Your task to perform on an android device: open app "Booking.com: Hotels and more" (install if not already installed) Image 0: 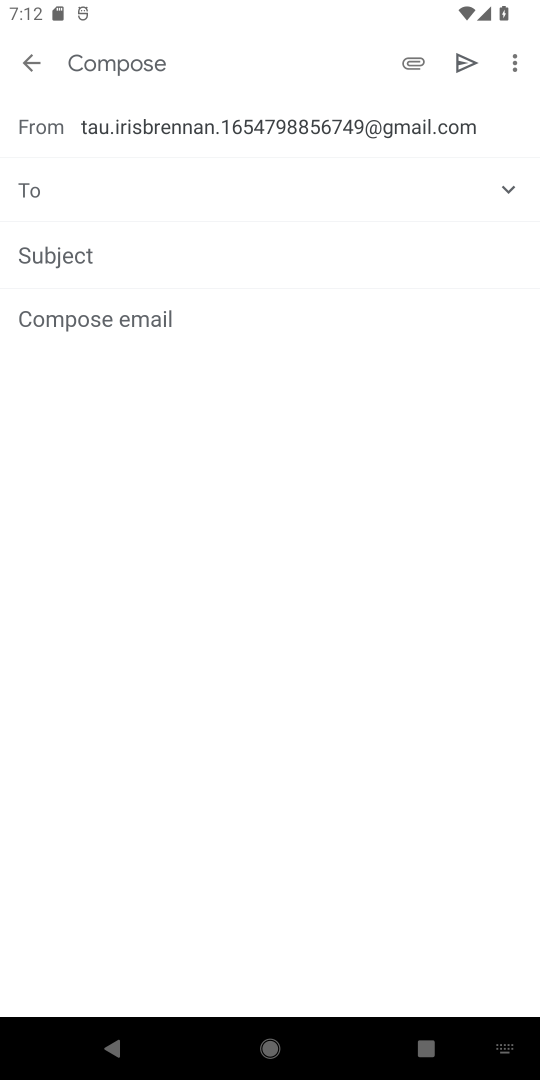
Step 0: press home button
Your task to perform on an android device: open app "Booking.com: Hotels and more" (install if not already installed) Image 1: 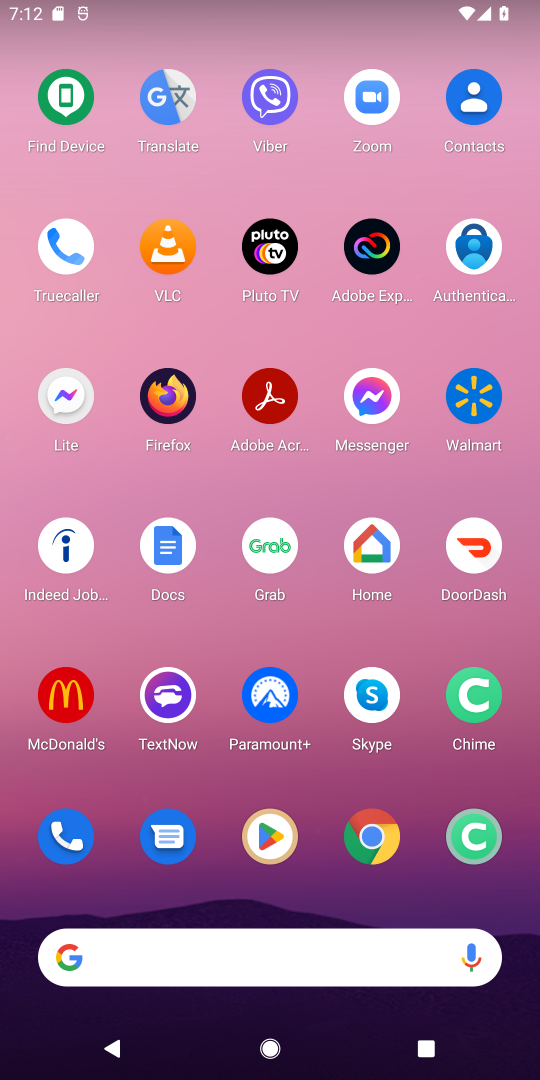
Step 1: press home button
Your task to perform on an android device: open app "Booking.com: Hotels and more" (install if not already installed) Image 2: 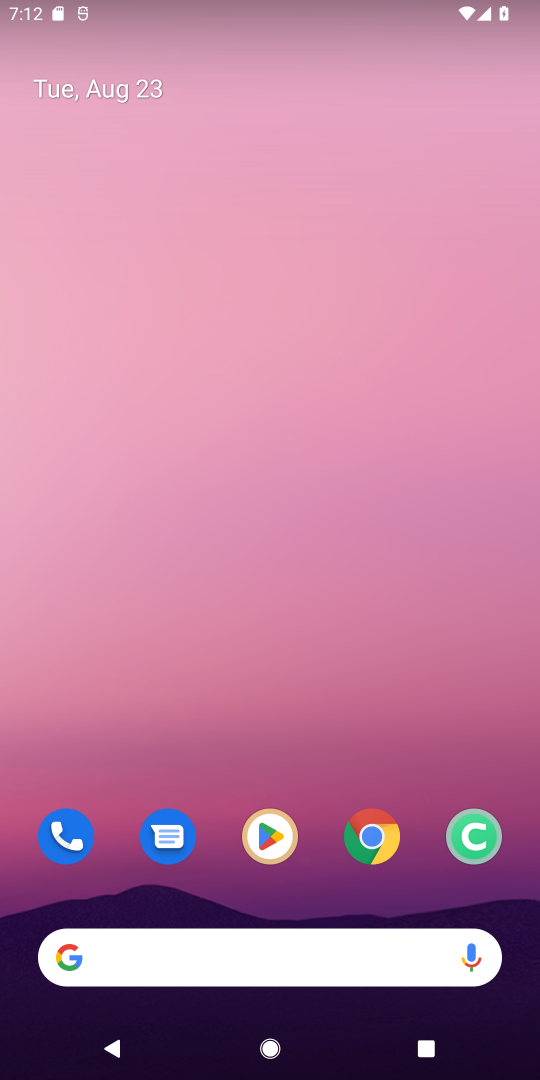
Step 2: click (273, 827)
Your task to perform on an android device: open app "Booking.com: Hotels and more" (install if not already installed) Image 3: 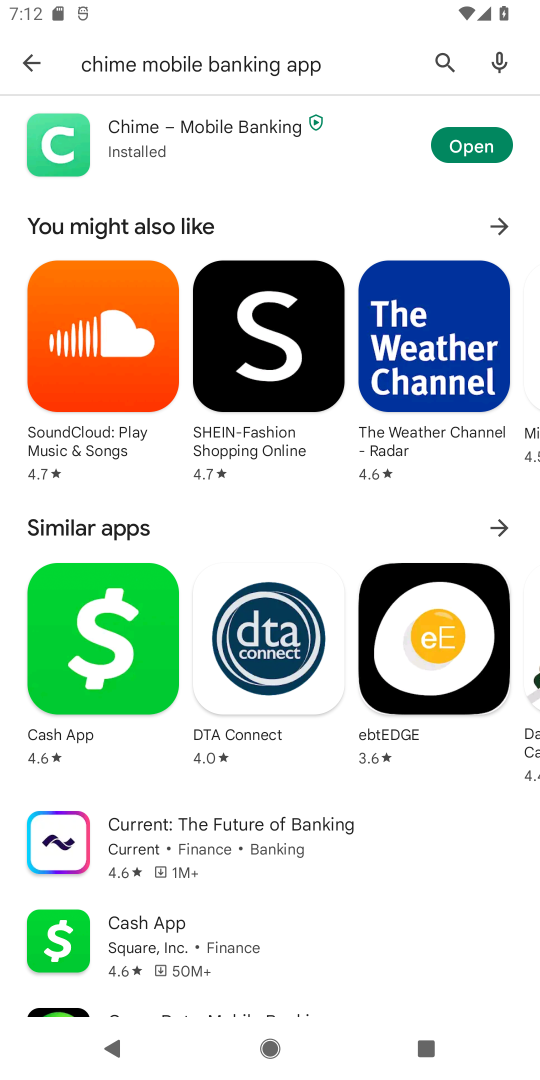
Step 3: click (444, 53)
Your task to perform on an android device: open app "Booking.com: Hotels and more" (install if not already installed) Image 4: 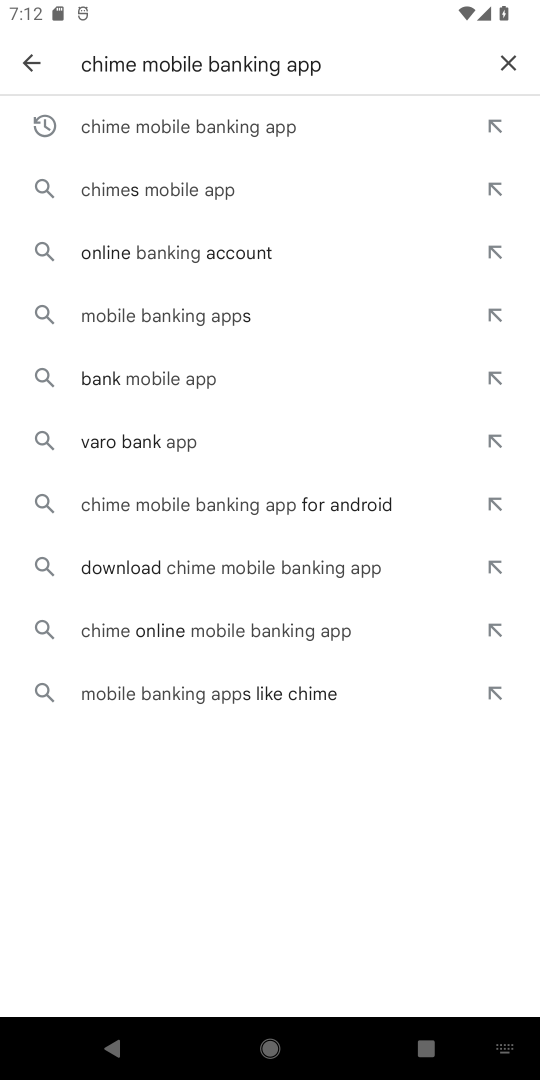
Step 4: click (516, 51)
Your task to perform on an android device: open app "Booking.com: Hotels and more" (install if not already installed) Image 5: 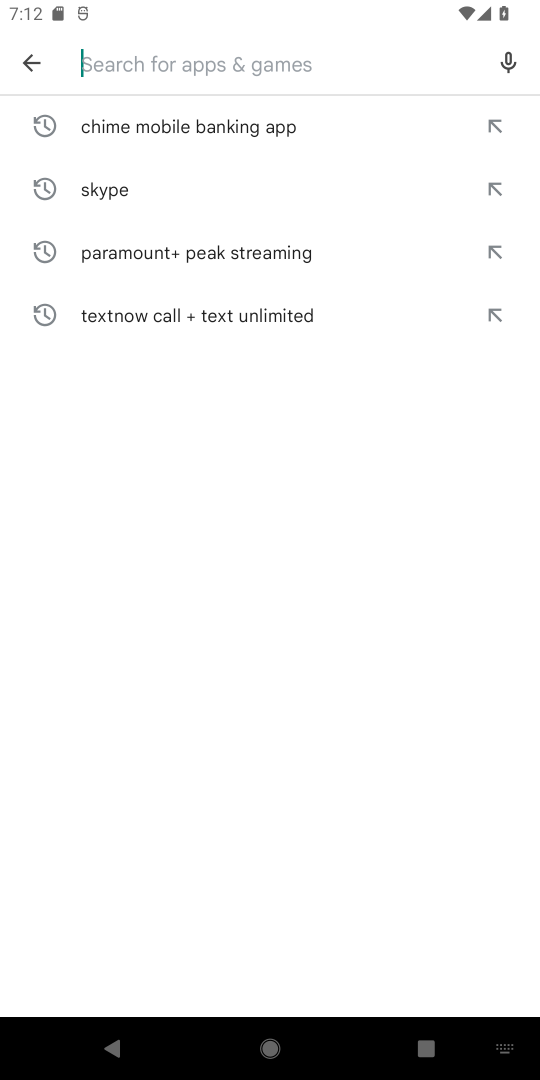
Step 5: type "Booking.com: Hotels and more"
Your task to perform on an android device: open app "Booking.com: Hotels and more" (install if not already installed) Image 6: 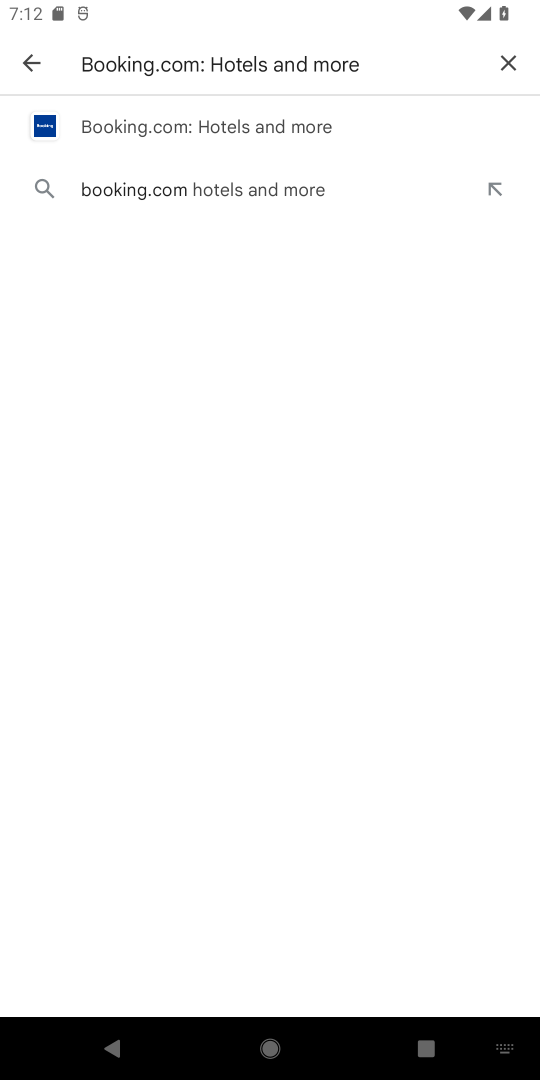
Step 6: click (240, 134)
Your task to perform on an android device: open app "Booking.com: Hotels and more" (install if not already installed) Image 7: 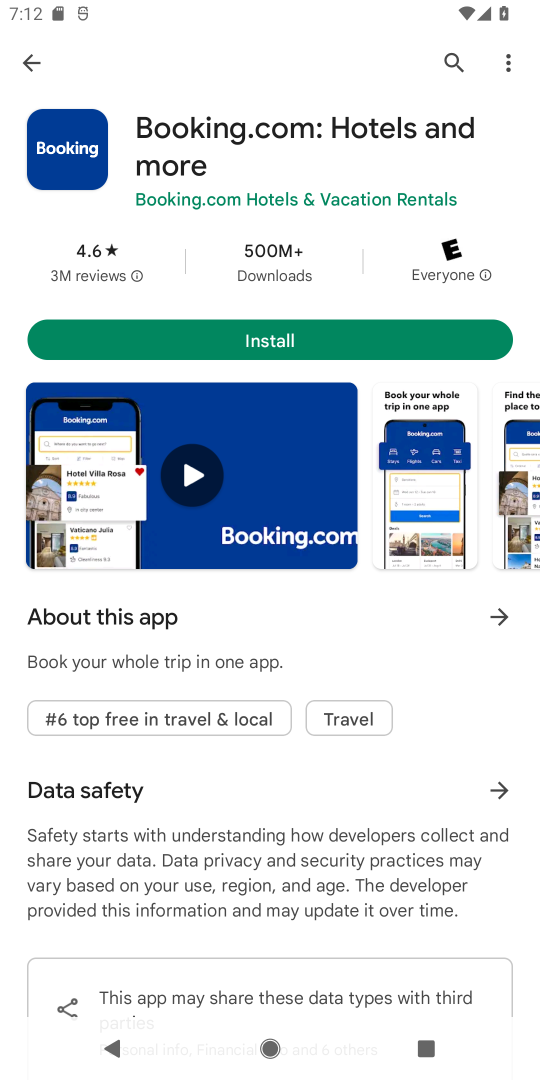
Step 7: click (329, 342)
Your task to perform on an android device: open app "Booking.com: Hotels and more" (install if not already installed) Image 8: 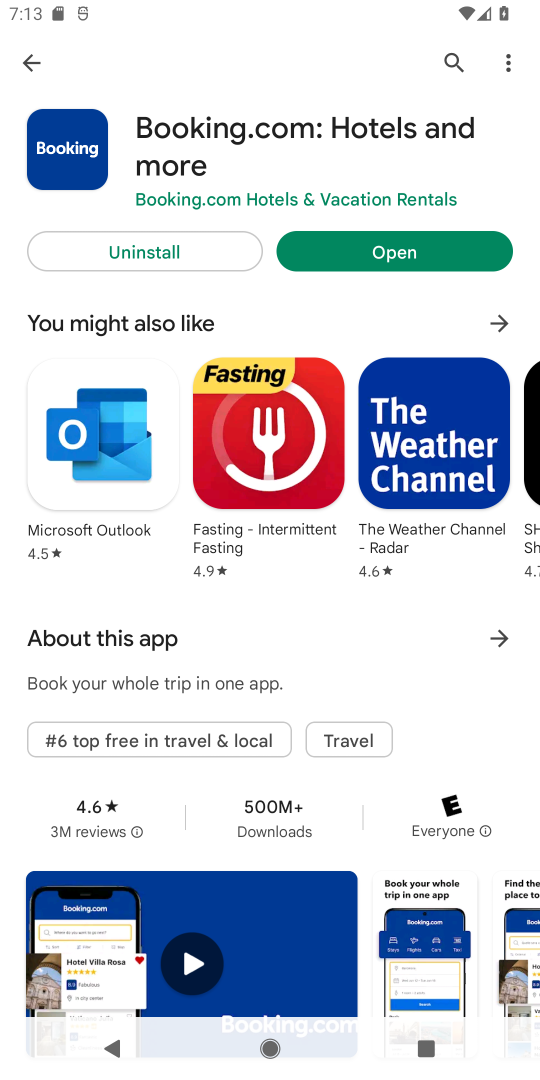
Step 8: click (401, 259)
Your task to perform on an android device: open app "Booking.com: Hotels and more" (install if not already installed) Image 9: 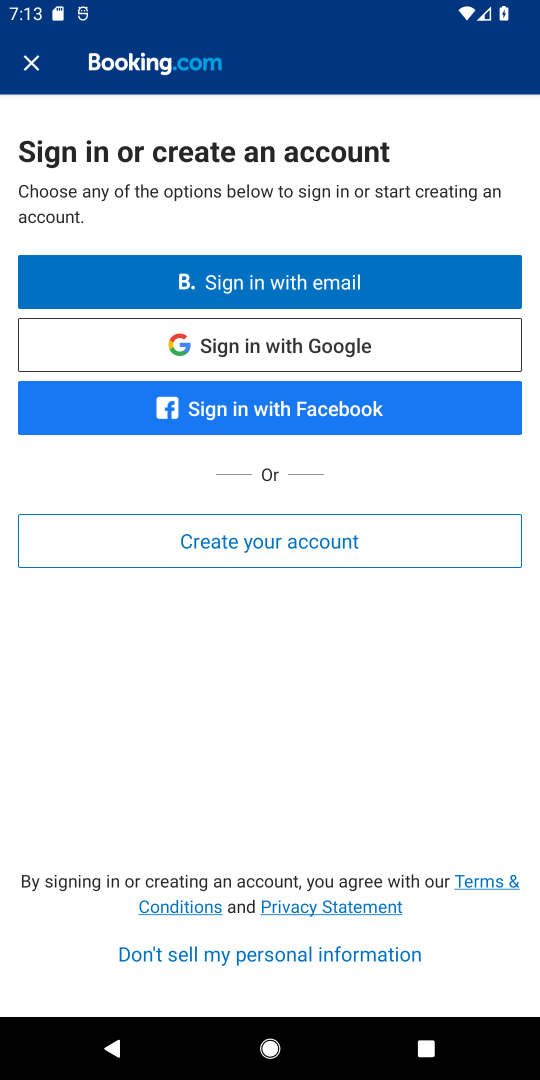
Step 9: task complete